Your task to perform on an android device: Go to privacy settings Image 0: 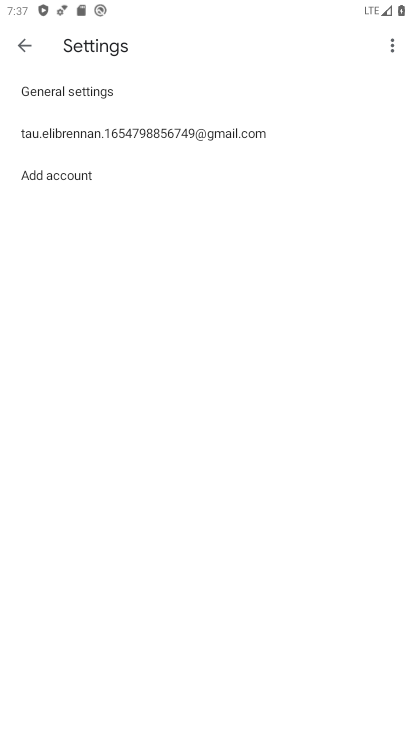
Step 0: press home button
Your task to perform on an android device: Go to privacy settings Image 1: 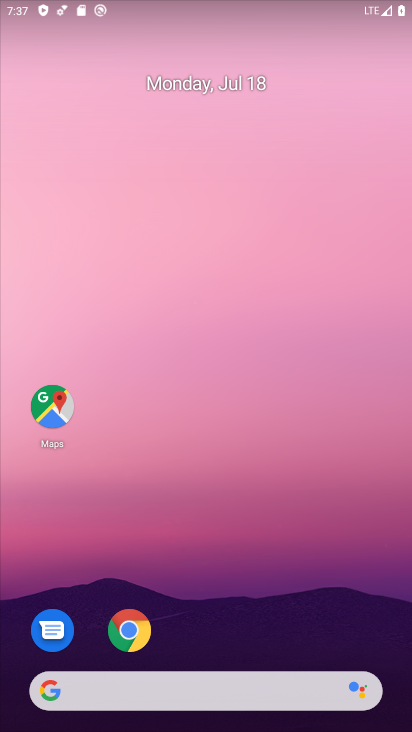
Step 1: drag from (206, 666) to (282, 82)
Your task to perform on an android device: Go to privacy settings Image 2: 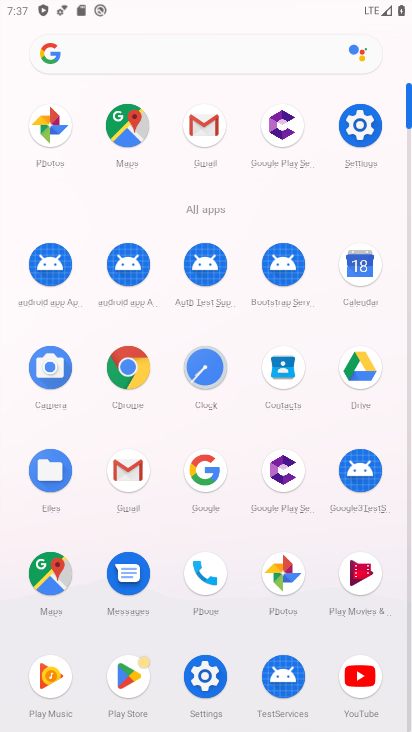
Step 2: click (360, 142)
Your task to perform on an android device: Go to privacy settings Image 3: 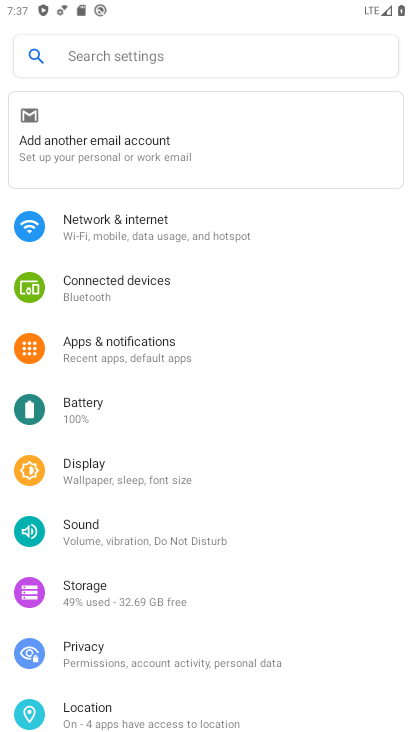
Step 3: click (79, 661)
Your task to perform on an android device: Go to privacy settings Image 4: 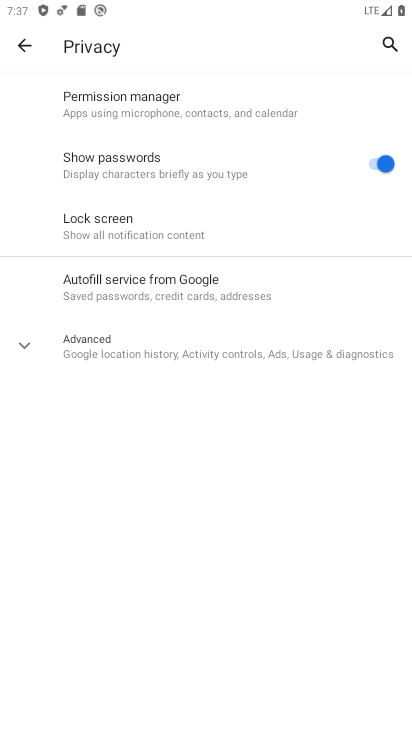
Step 4: click (91, 335)
Your task to perform on an android device: Go to privacy settings Image 5: 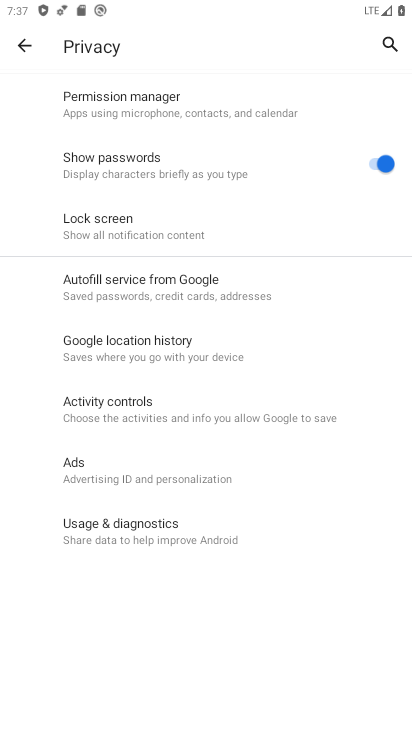
Step 5: task complete